Your task to perform on an android device: set an alarm Image 0: 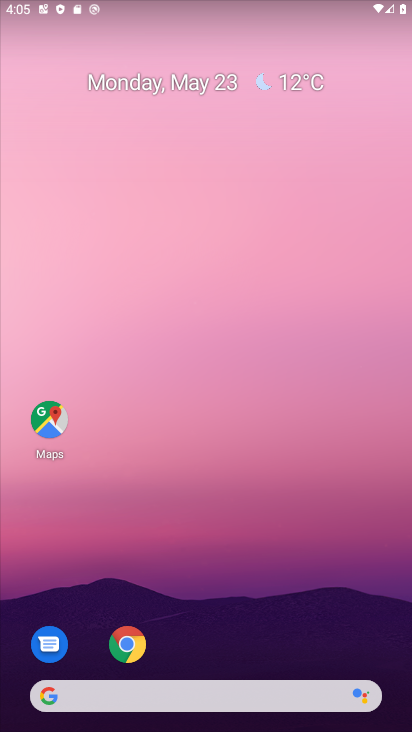
Step 0: drag from (258, 635) to (195, 106)
Your task to perform on an android device: set an alarm Image 1: 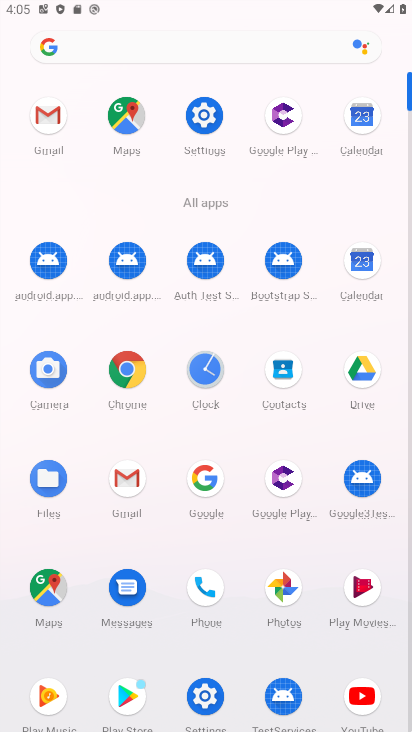
Step 1: click (205, 368)
Your task to perform on an android device: set an alarm Image 2: 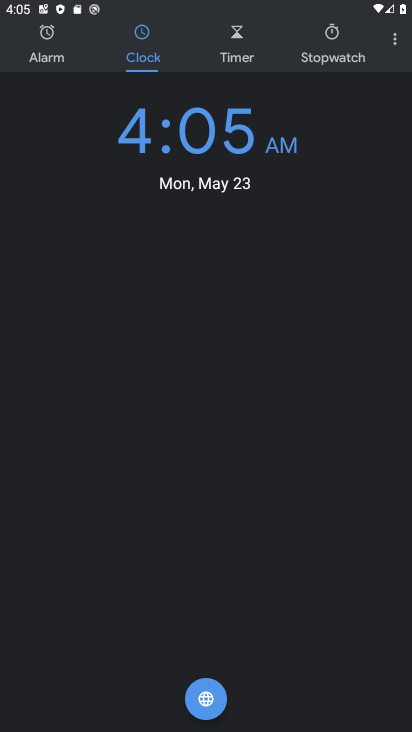
Step 2: click (38, 51)
Your task to perform on an android device: set an alarm Image 3: 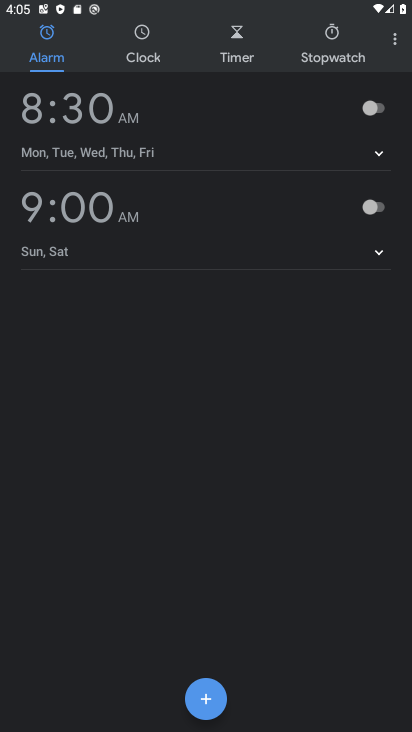
Step 3: click (194, 696)
Your task to perform on an android device: set an alarm Image 4: 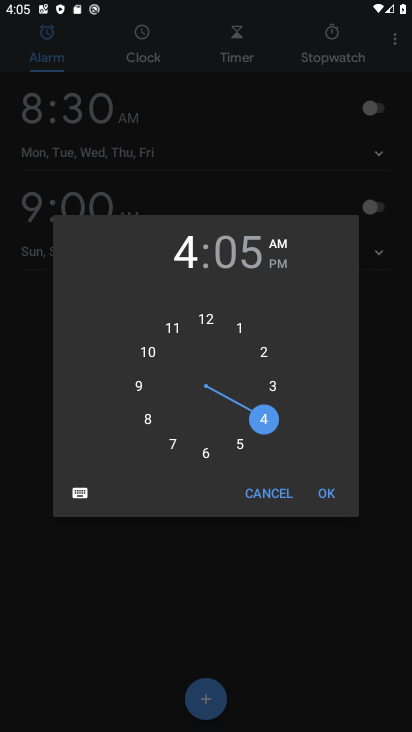
Step 4: click (324, 501)
Your task to perform on an android device: set an alarm Image 5: 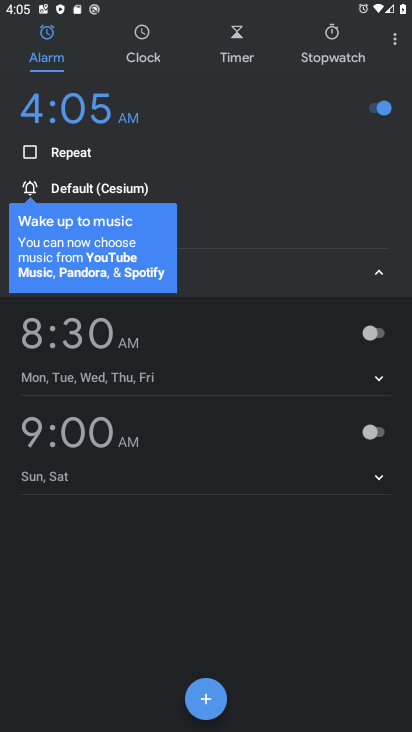
Step 5: task complete